Your task to perform on an android device: Turn on the flashlight Image 0: 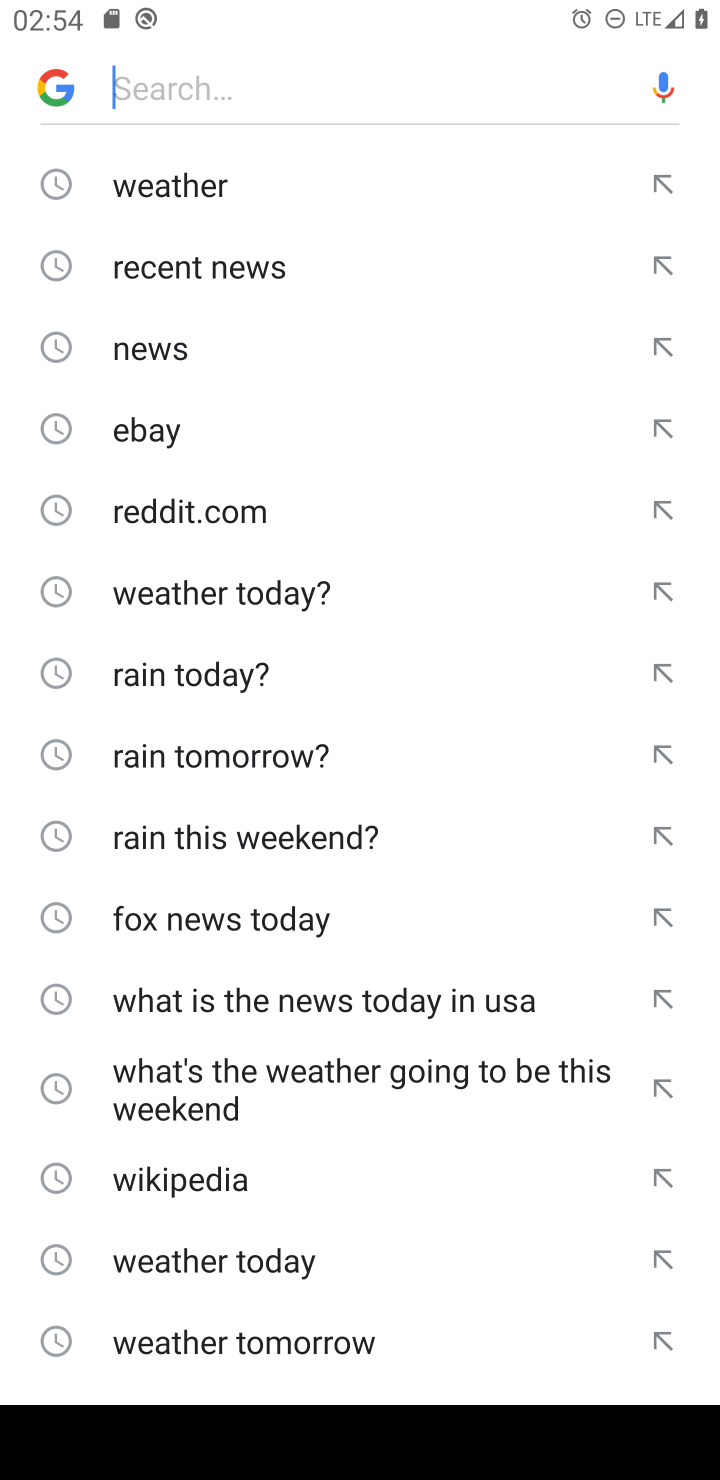
Step 0: press home button
Your task to perform on an android device: Turn on the flashlight Image 1: 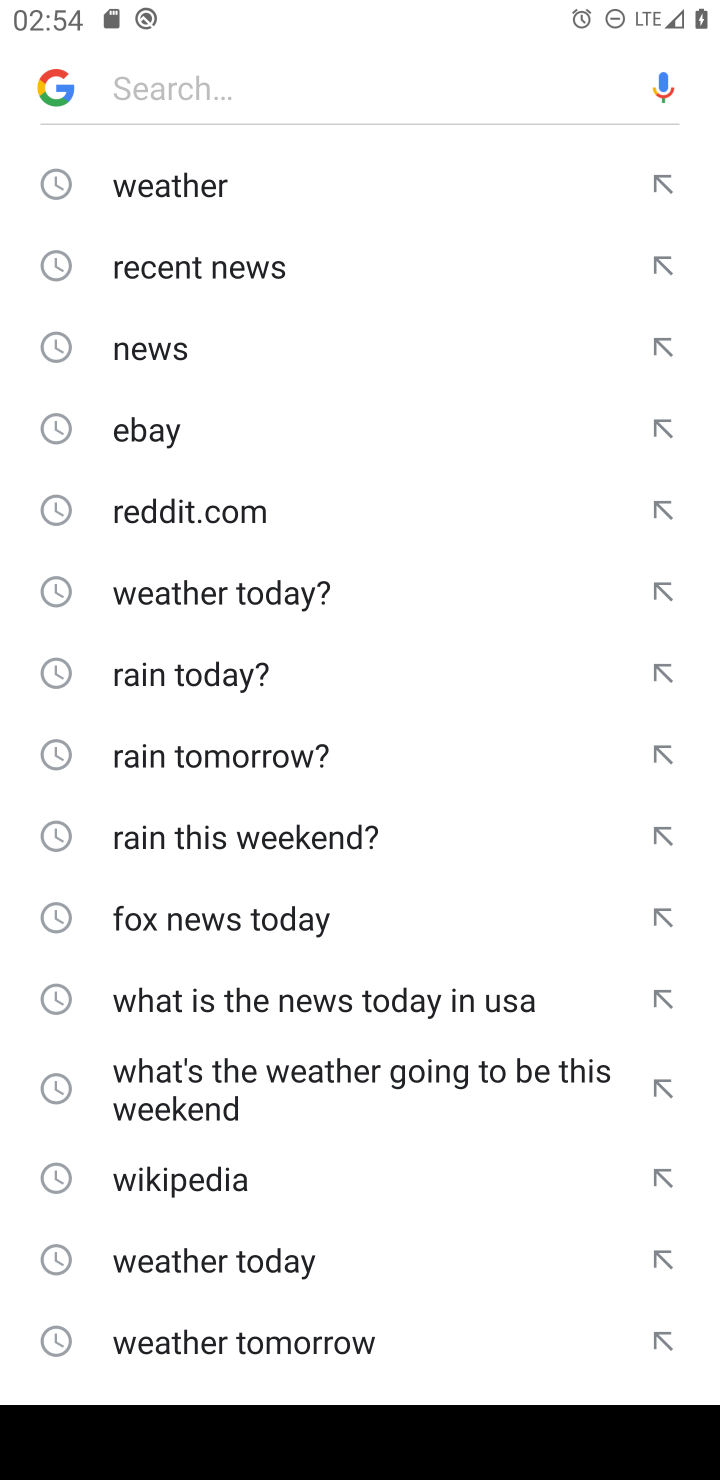
Step 1: press home button
Your task to perform on an android device: Turn on the flashlight Image 2: 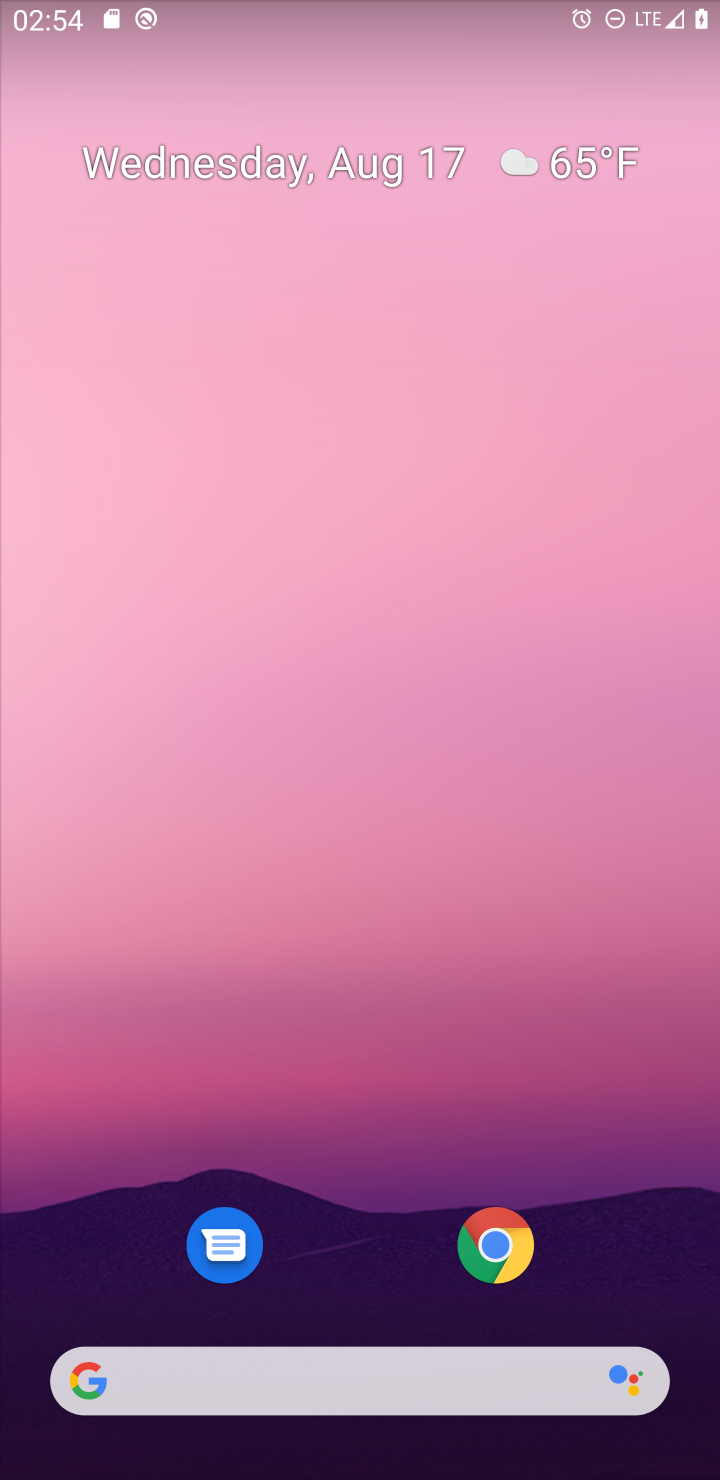
Step 2: drag from (374, 1290) to (309, 273)
Your task to perform on an android device: Turn on the flashlight Image 3: 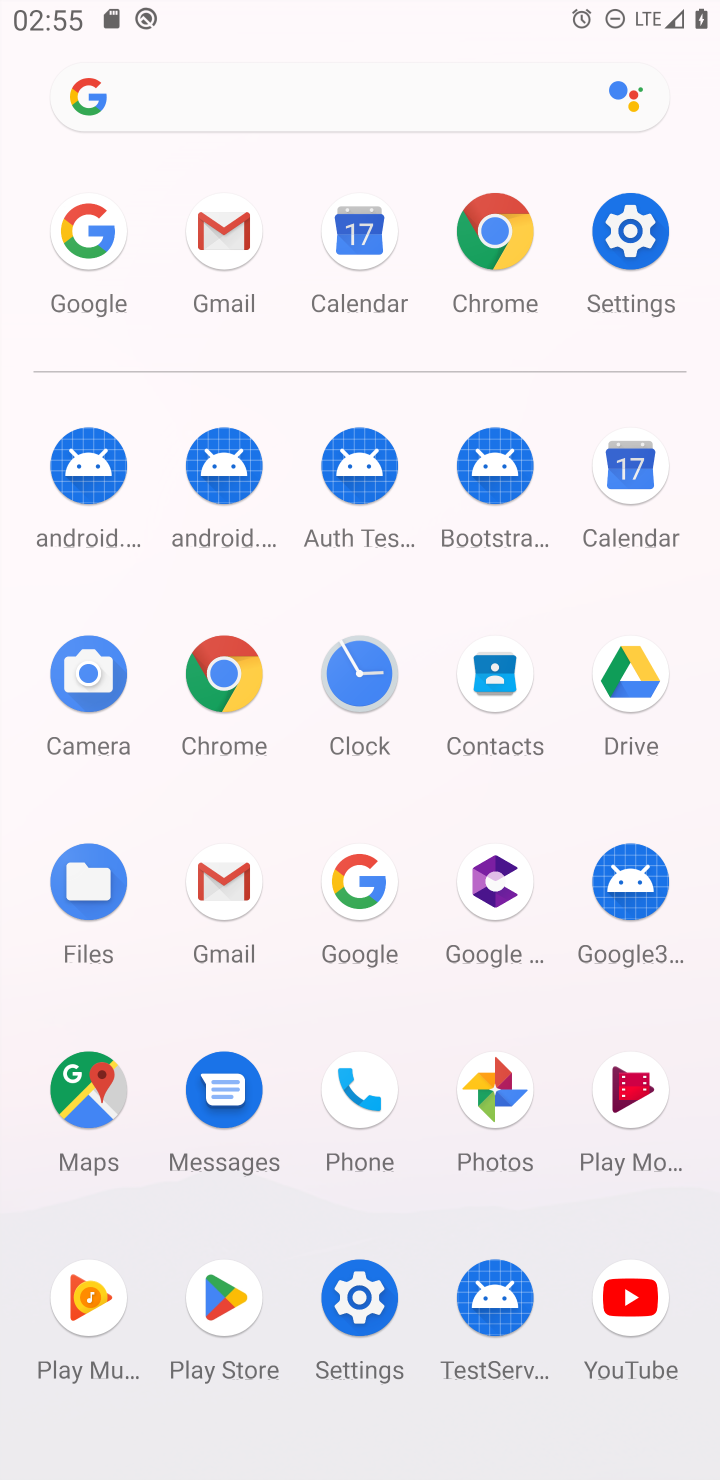
Step 3: click (617, 234)
Your task to perform on an android device: Turn on the flashlight Image 4: 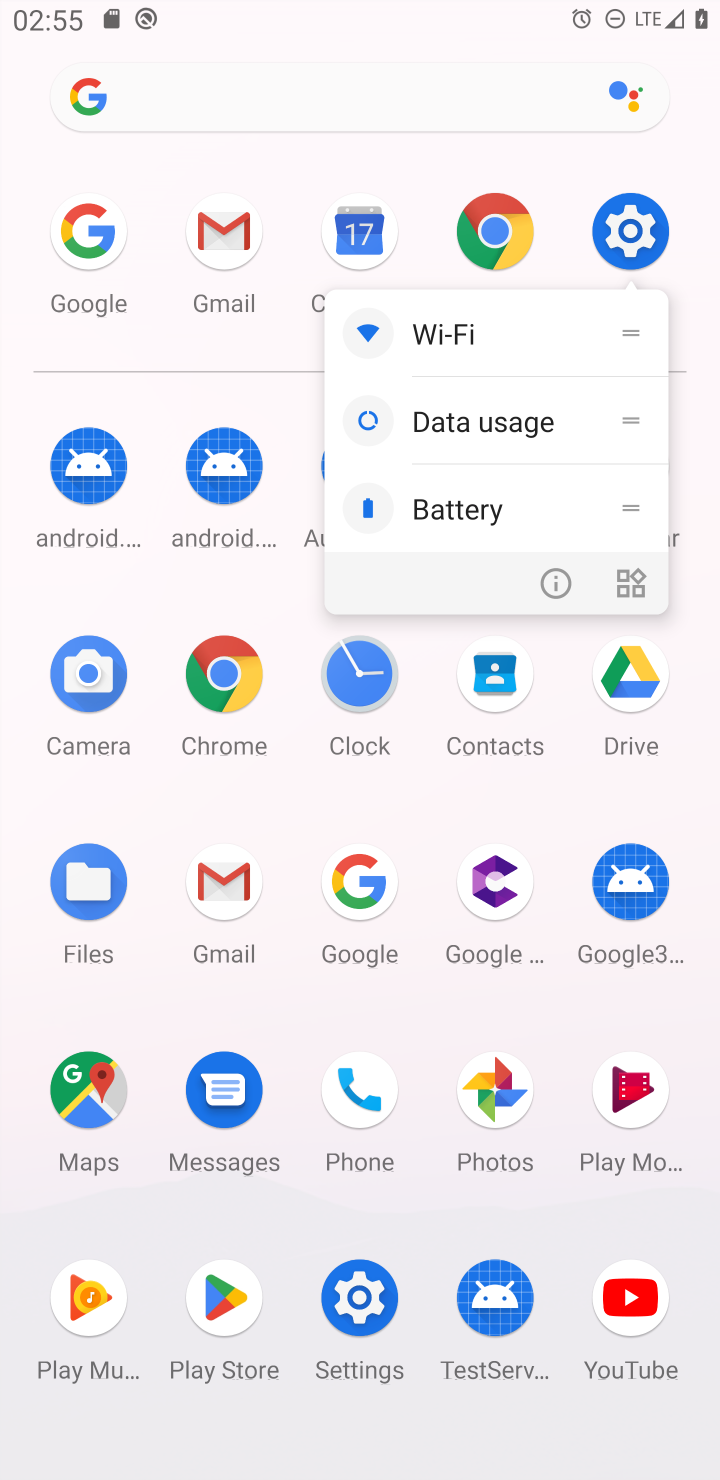
Step 4: click (631, 225)
Your task to perform on an android device: Turn on the flashlight Image 5: 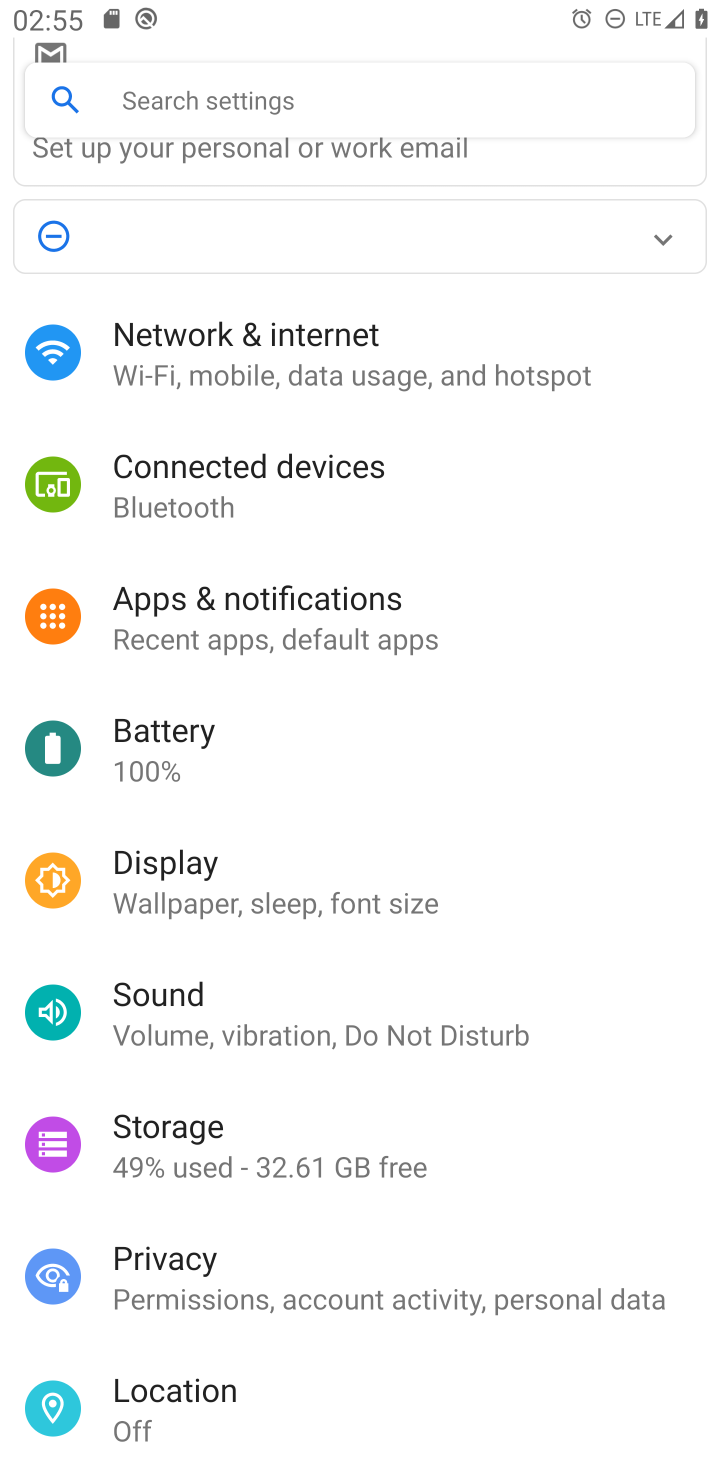
Step 5: click (629, 227)
Your task to perform on an android device: Turn on the flashlight Image 6: 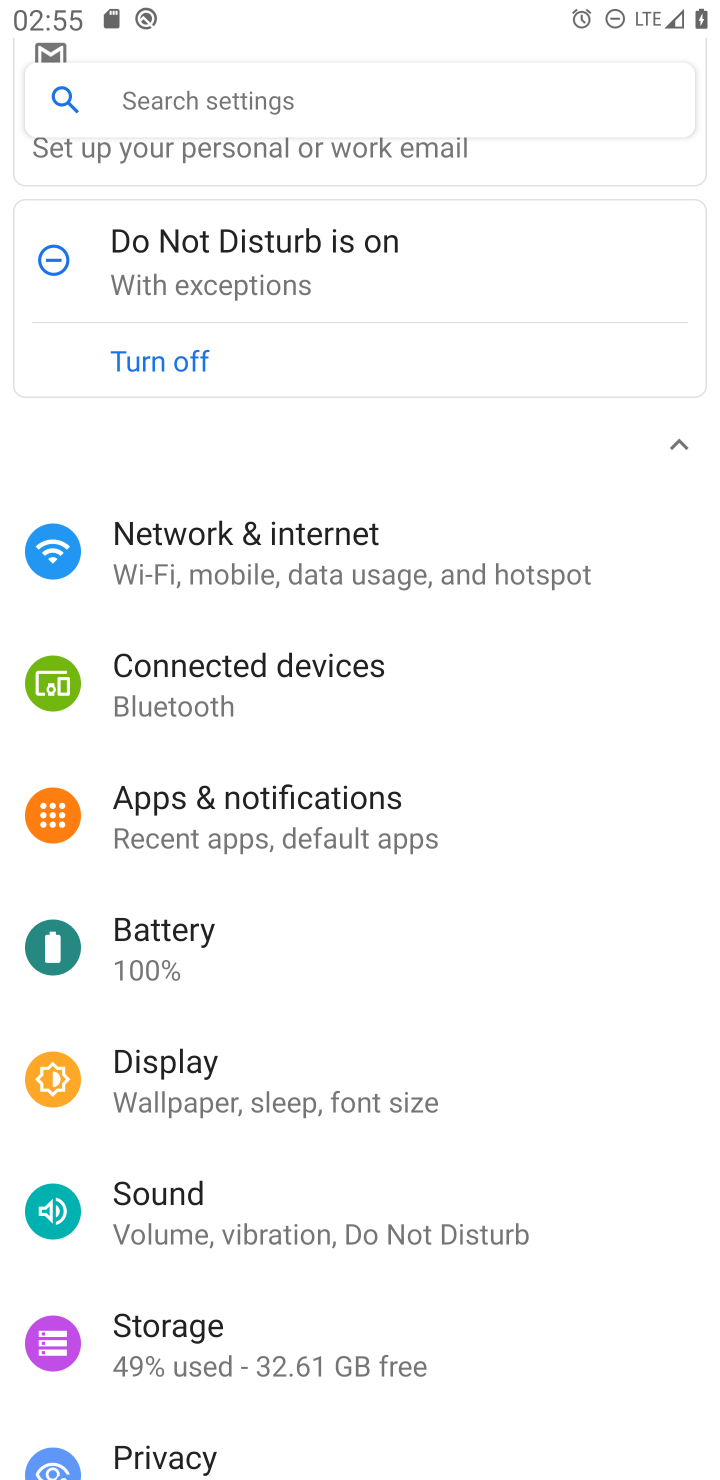
Step 6: task complete